Your task to perform on an android device: empty trash in the gmail app Image 0: 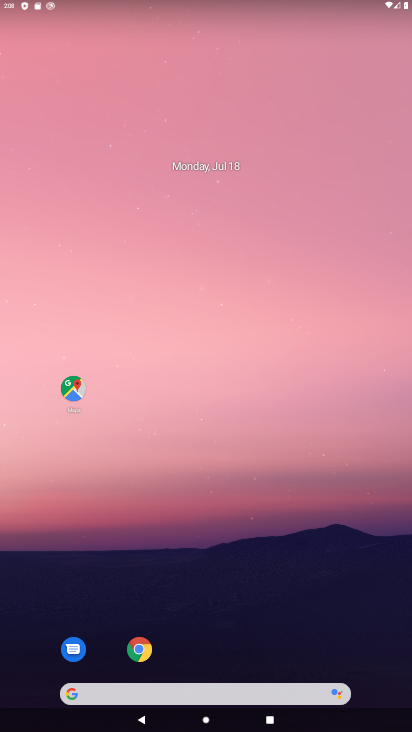
Step 0: drag from (216, 644) to (222, 13)
Your task to perform on an android device: empty trash in the gmail app Image 1: 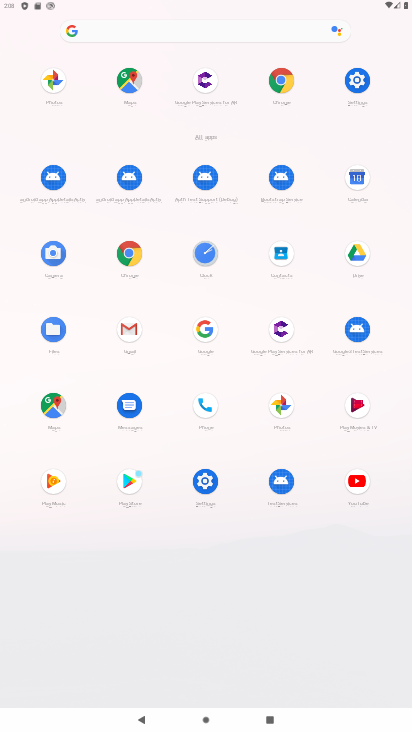
Step 1: click (131, 335)
Your task to perform on an android device: empty trash in the gmail app Image 2: 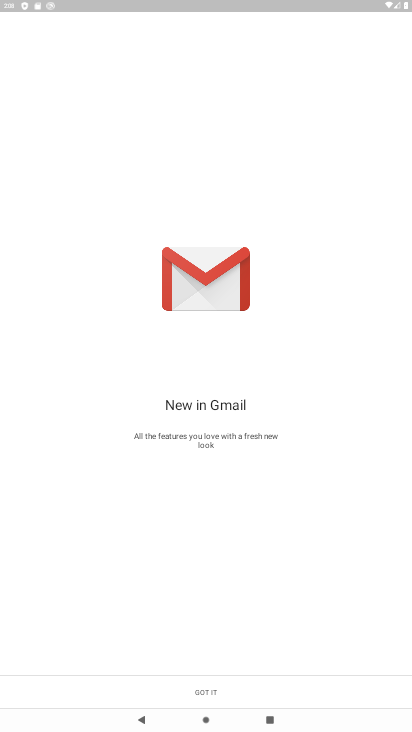
Step 2: click (222, 694)
Your task to perform on an android device: empty trash in the gmail app Image 3: 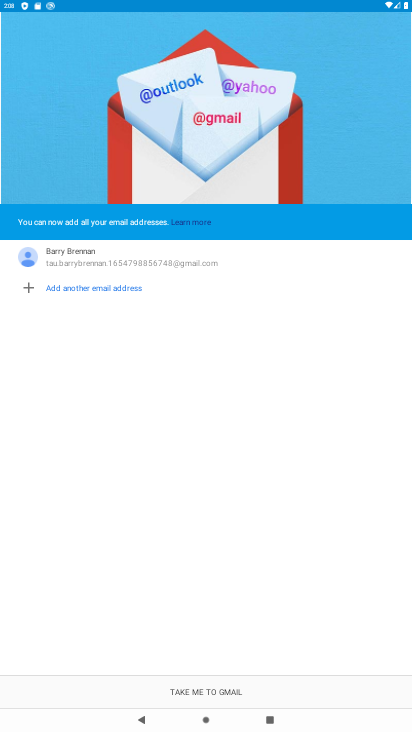
Step 3: click (229, 688)
Your task to perform on an android device: empty trash in the gmail app Image 4: 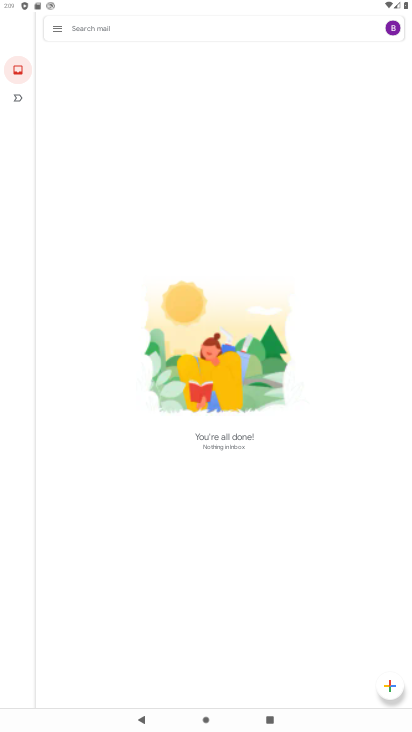
Step 4: click (55, 26)
Your task to perform on an android device: empty trash in the gmail app Image 5: 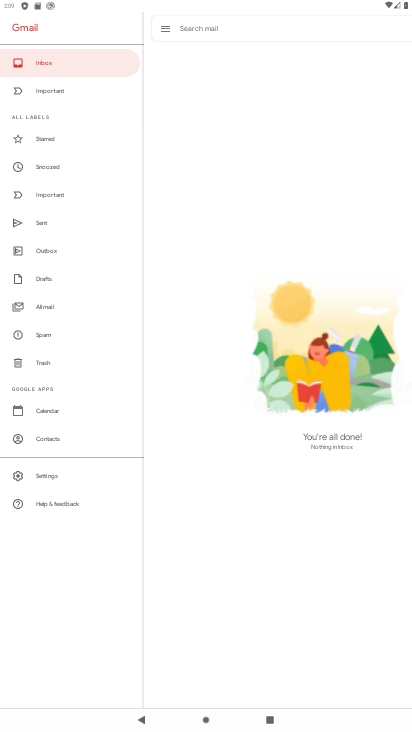
Step 5: click (45, 365)
Your task to perform on an android device: empty trash in the gmail app Image 6: 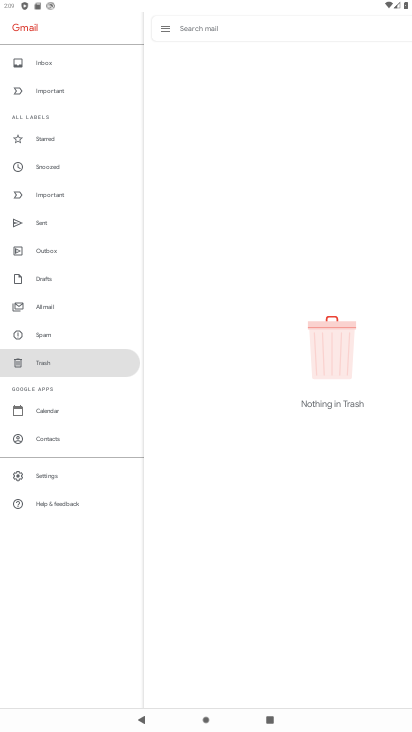
Step 6: click (36, 362)
Your task to perform on an android device: empty trash in the gmail app Image 7: 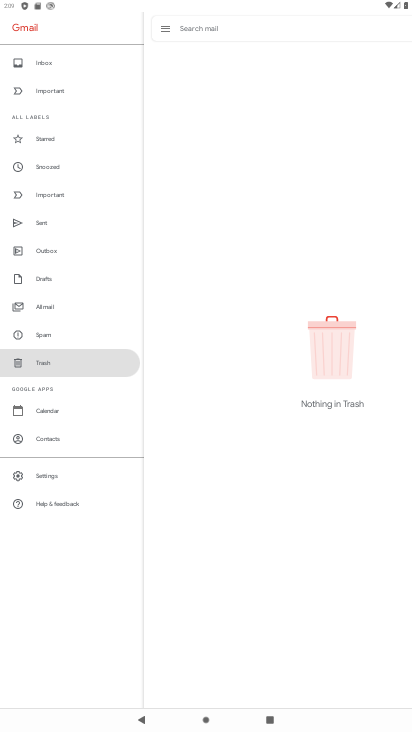
Step 7: task complete